Your task to perform on an android device: turn on wifi Image 0: 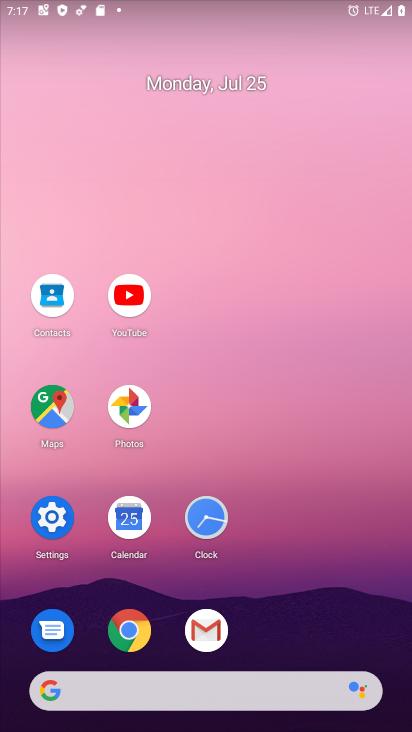
Step 0: click (43, 519)
Your task to perform on an android device: turn on wifi Image 1: 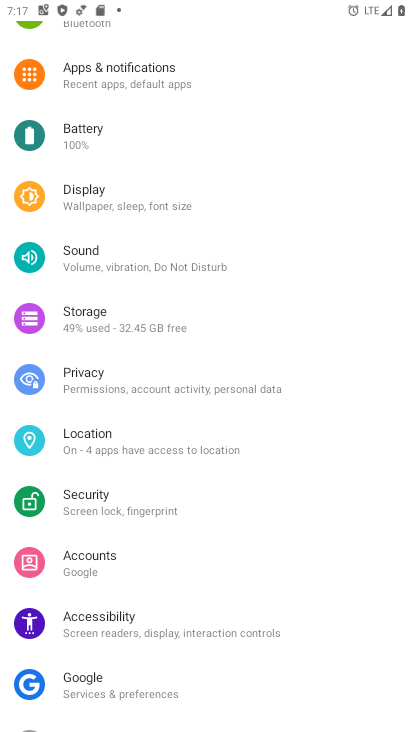
Step 1: drag from (212, 126) to (233, 565)
Your task to perform on an android device: turn on wifi Image 2: 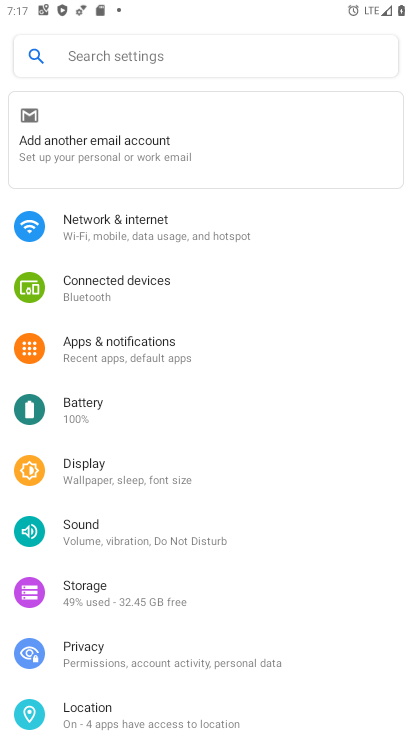
Step 2: click (130, 222)
Your task to perform on an android device: turn on wifi Image 3: 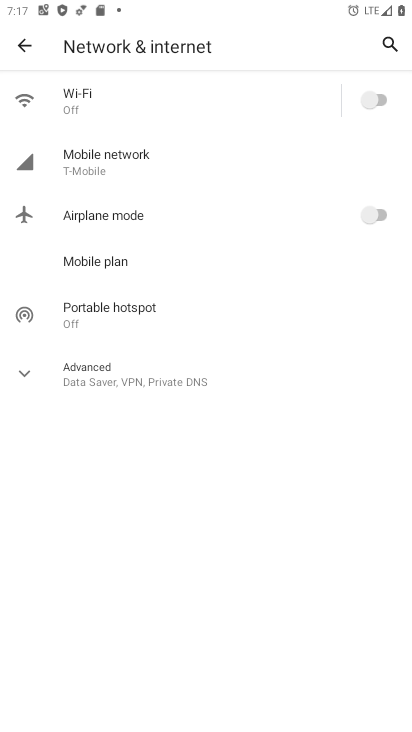
Step 3: click (373, 87)
Your task to perform on an android device: turn on wifi Image 4: 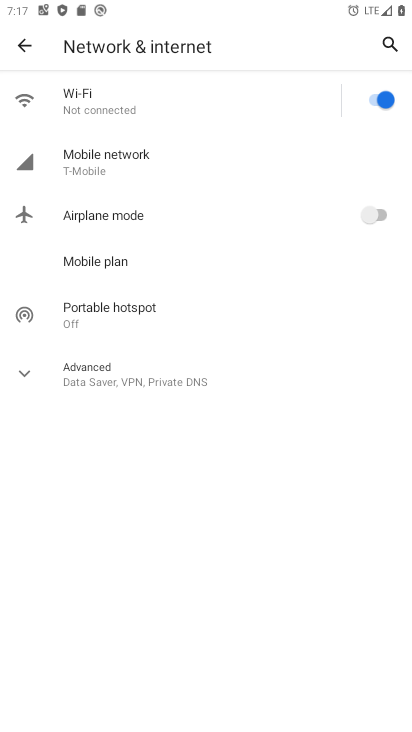
Step 4: task complete